Your task to perform on an android device: Open Youtube and go to the subscriptions tab Image 0: 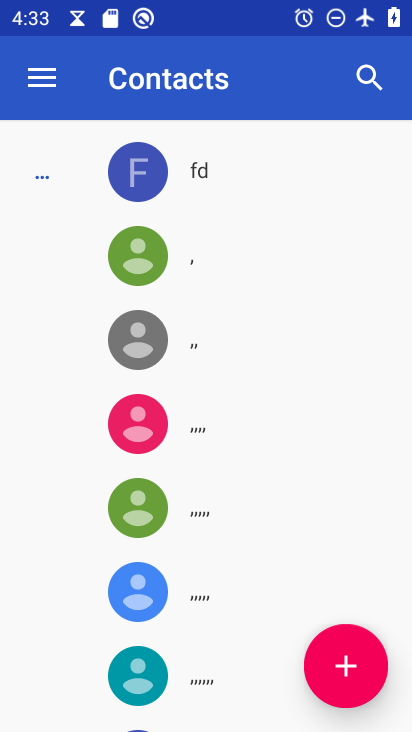
Step 0: press home button
Your task to perform on an android device: Open Youtube and go to the subscriptions tab Image 1: 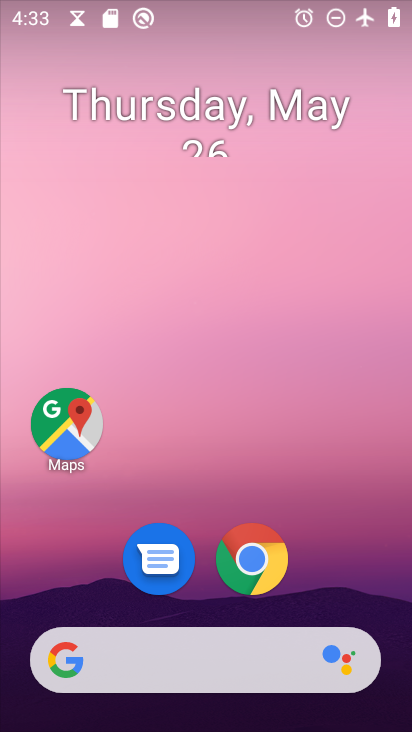
Step 1: drag from (320, 507) to (205, 28)
Your task to perform on an android device: Open Youtube and go to the subscriptions tab Image 2: 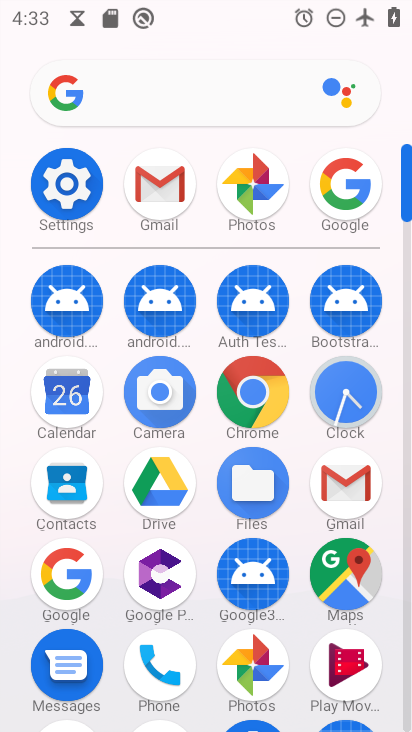
Step 2: drag from (199, 607) to (230, 168)
Your task to perform on an android device: Open Youtube and go to the subscriptions tab Image 3: 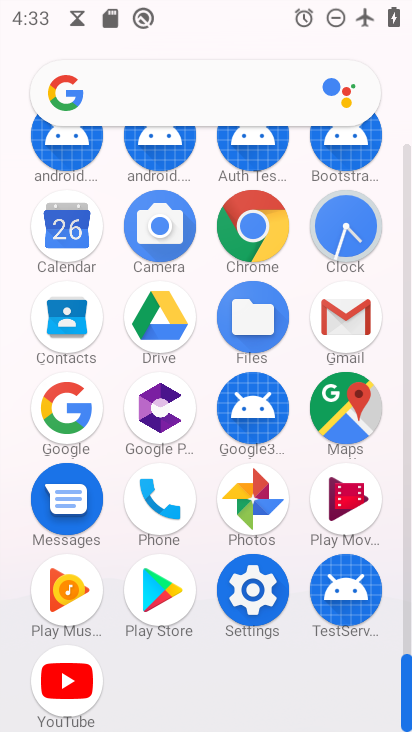
Step 3: click (72, 674)
Your task to perform on an android device: Open Youtube and go to the subscriptions tab Image 4: 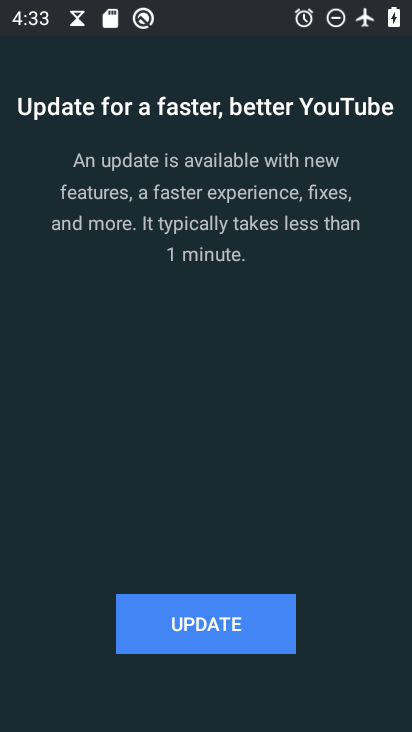
Step 4: click (253, 628)
Your task to perform on an android device: Open Youtube and go to the subscriptions tab Image 5: 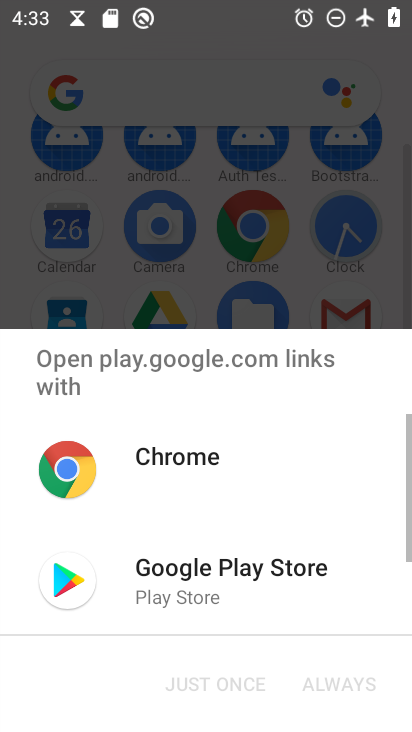
Step 5: click (204, 566)
Your task to perform on an android device: Open Youtube and go to the subscriptions tab Image 6: 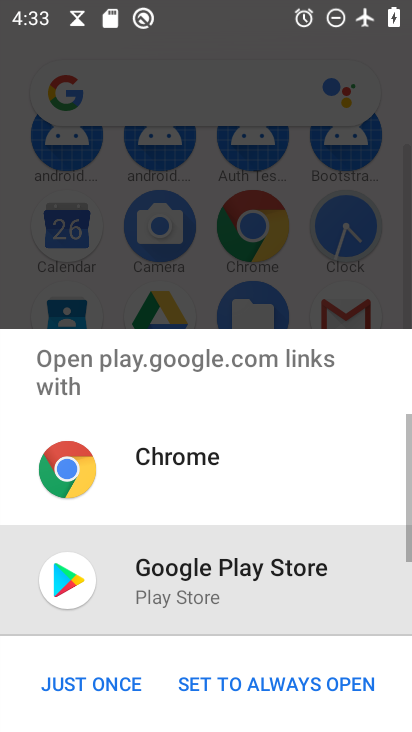
Step 6: click (88, 678)
Your task to perform on an android device: Open Youtube and go to the subscriptions tab Image 7: 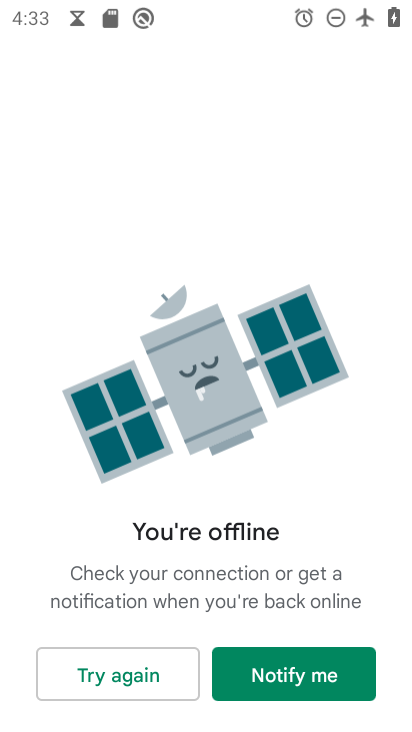
Step 7: task complete